Your task to perform on an android device: Install the Instagram app Image 0: 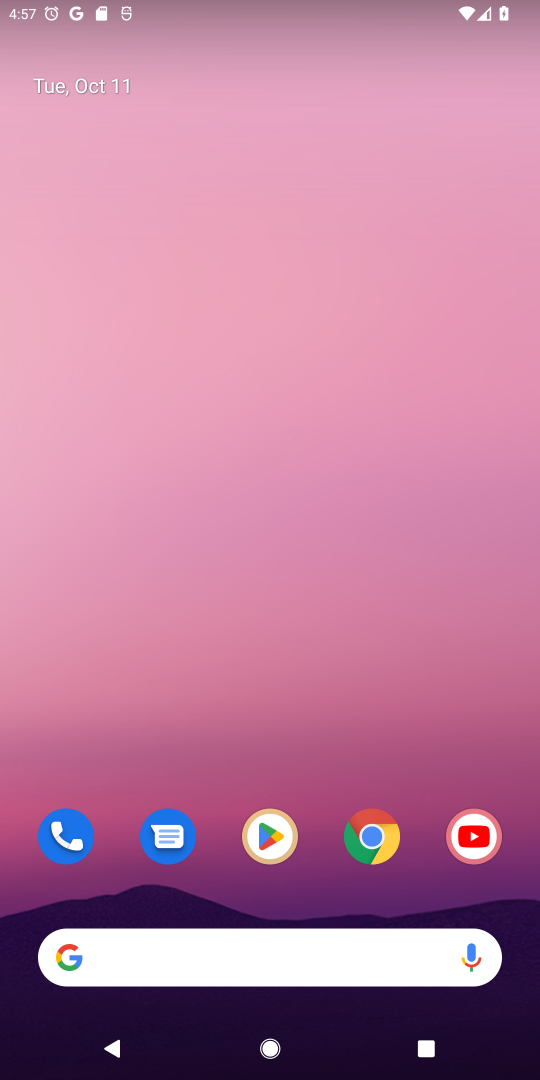
Step 0: click (259, 835)
Your task to perform on an android device: Install the Instagram app Image 1: 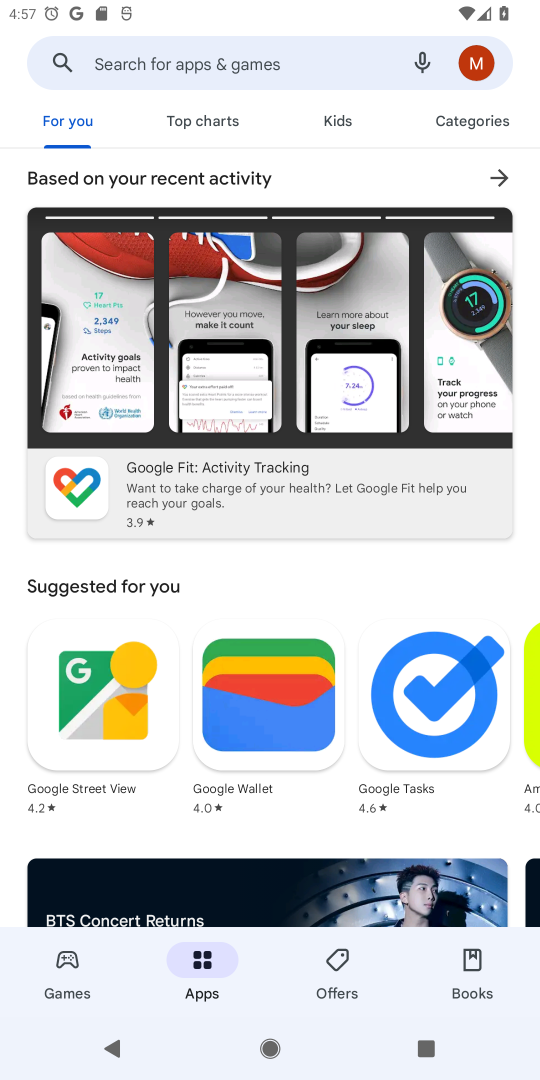
Step 1: click (260, 69)
Your task to perform on an android device: Install the Instagram app Image 2: 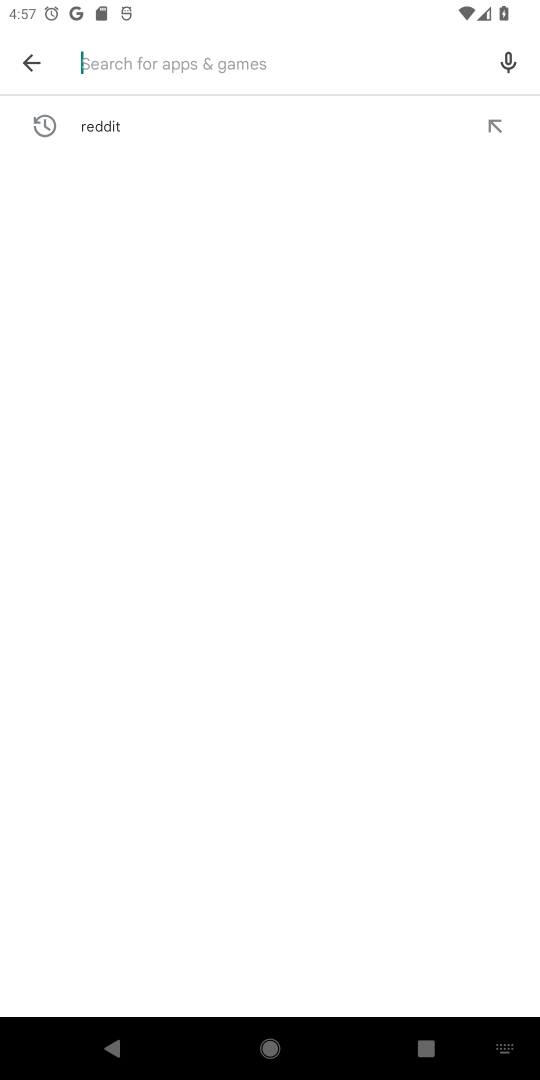
Step 2: type "instagram"
Your task to perform on an android device: Install the Instagram app Image 3: 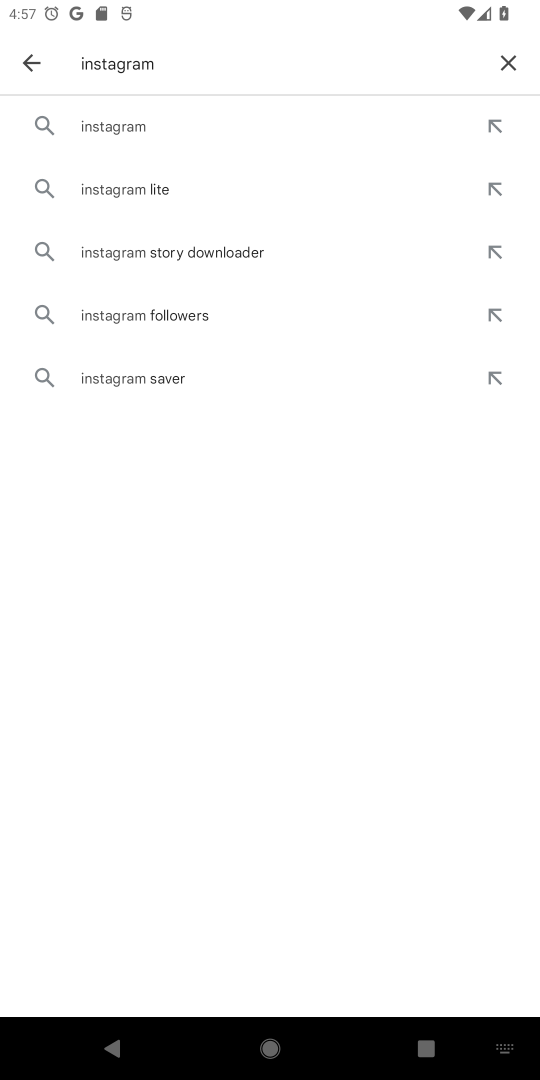
Step 3: click (256, 149)
Your task to perform on an android device: Install the Instagram app Image 4: 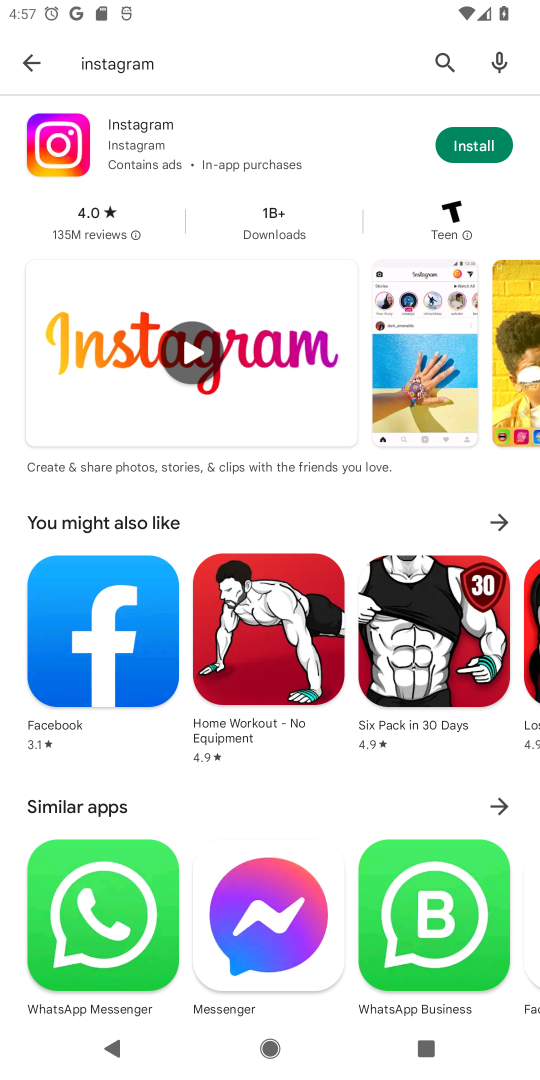
Step 4: click (460, 162)
Your task to perform on an android device: Install the Instagram app Image 5: 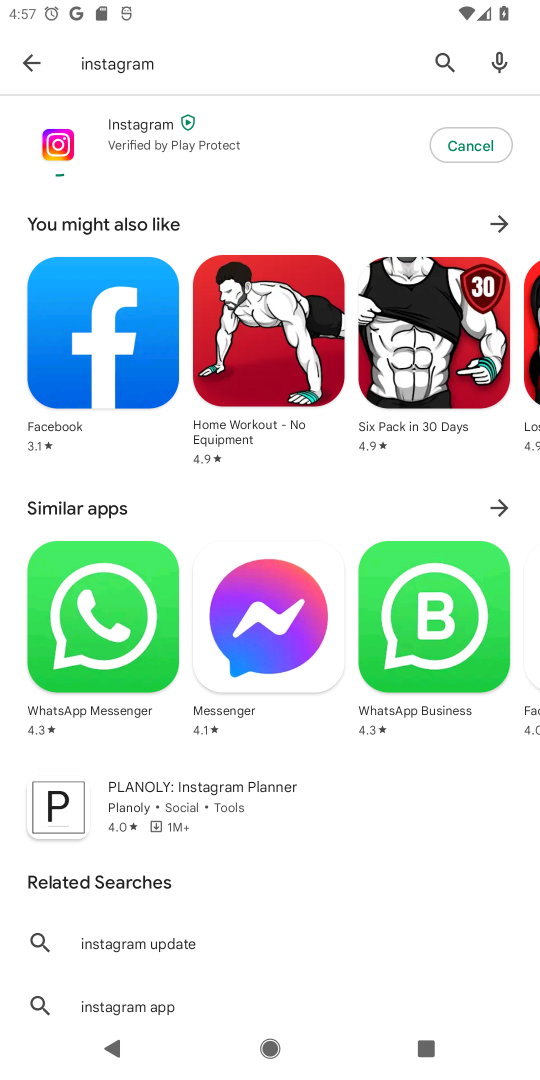
Step 5: task complete